Your task to perform on an android device: Go to location settings Image 0: 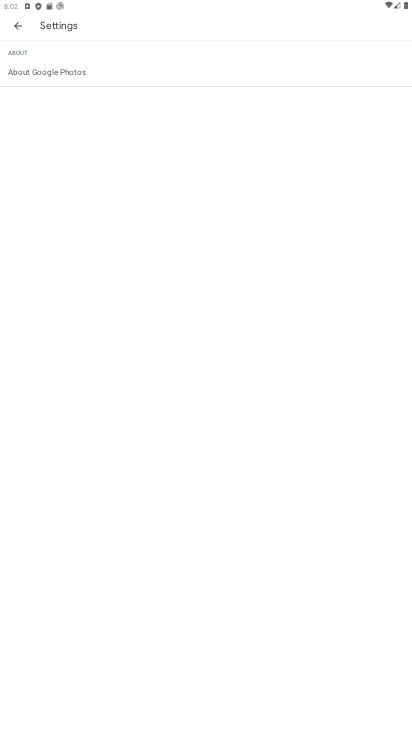
Step 0: press home button
Your task to perform on an android device: Go to location settings Image 1: 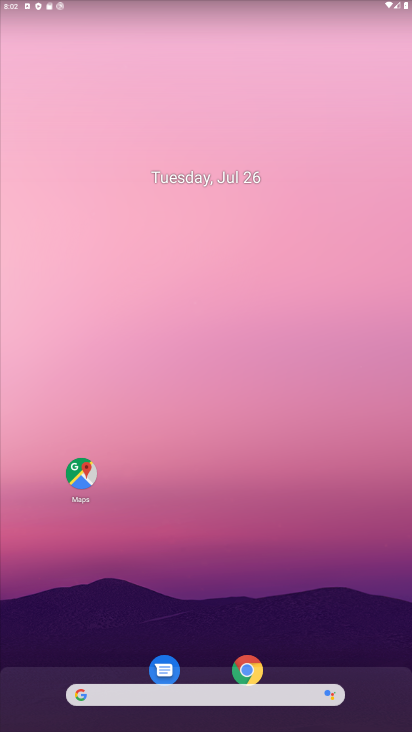
Step 1: drag from (202, 544) to (223, 102)
Your task to perform on an android device: Go to location settings Image 2: 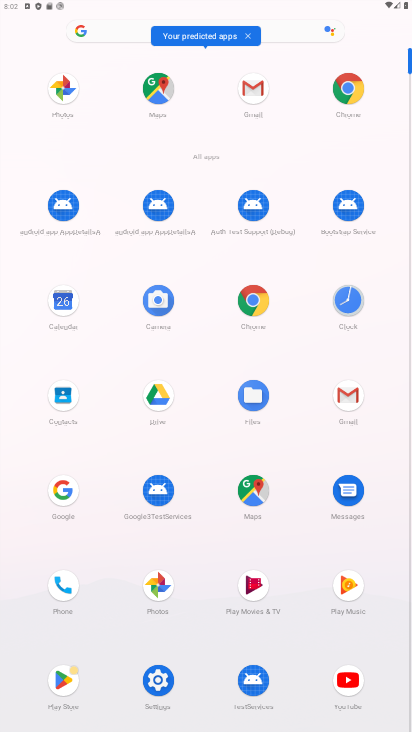
Step 2: click (150, 673)
Your task to perform on an android device: Go to location settings Image 3: 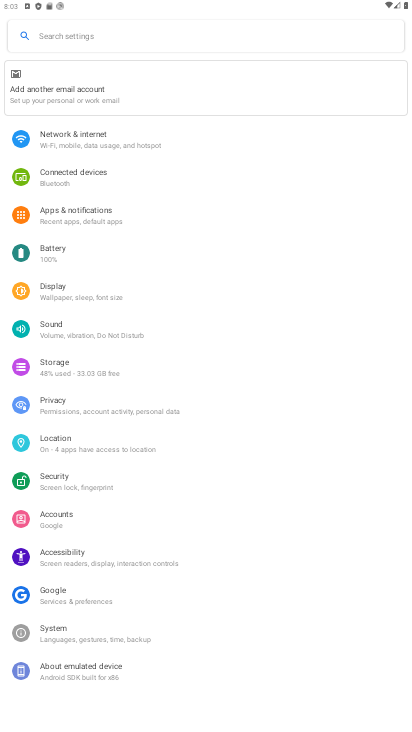
Step 3: click (107, 439)
Your task to perform on an android device: Go to location settings Image 4: 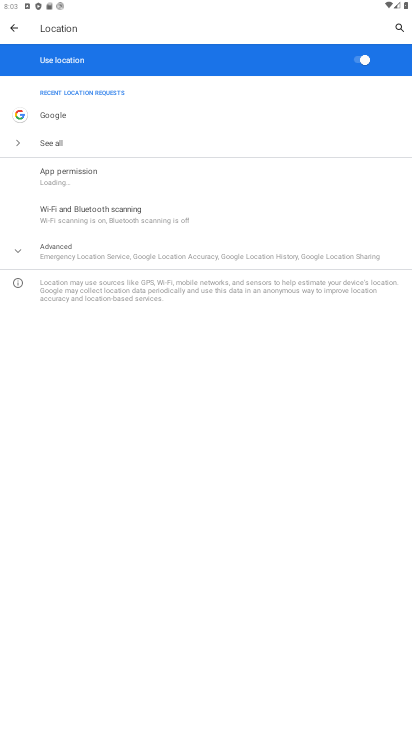
Step 4: task complete